Your task to perform on an android device: When is my next appointment? Image 0: 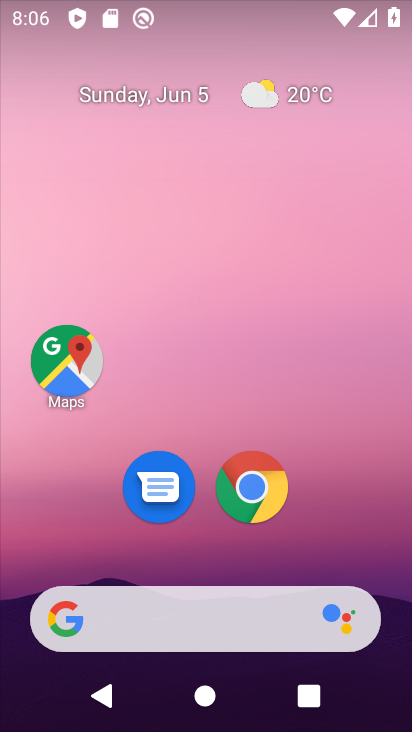
Step 0: drag from (259, 449) to (292, 3)
Your task to perform on an android device: When is my next appointment? Image 1: 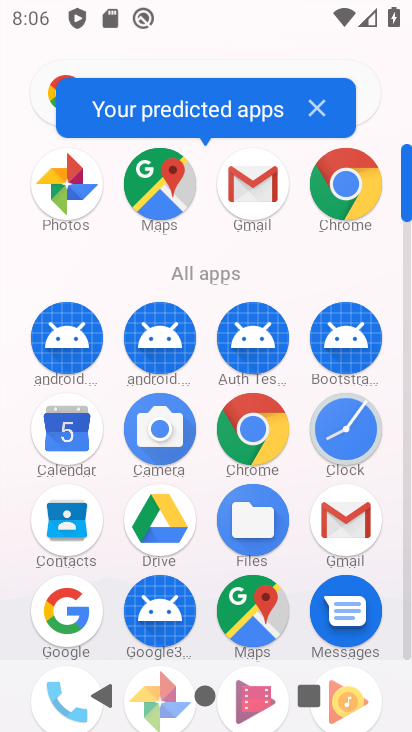
Step 1: click (72, 442)
Your task to perform on an android device: When is my next appointment? Image 2: 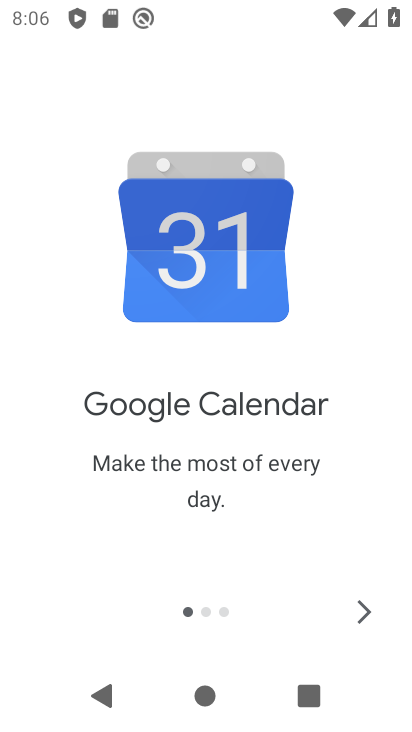
Step 2: click (377, 621)
Your task to perform on an android device: When is my next appointment? Image 3: 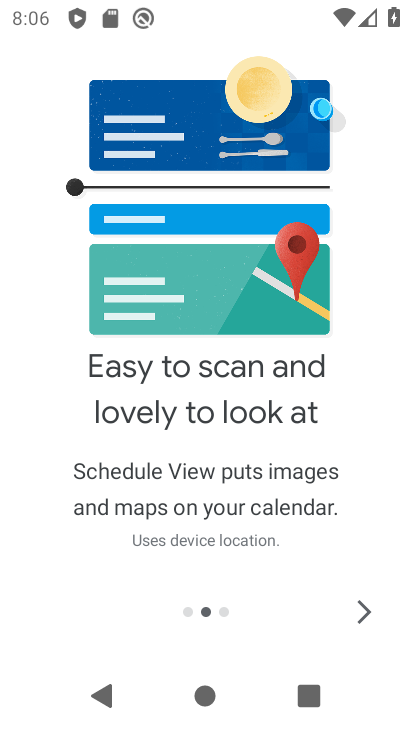
Step 3: click (358, 608)
Your task to perform on an android device: When is my next appointment? Image 4: 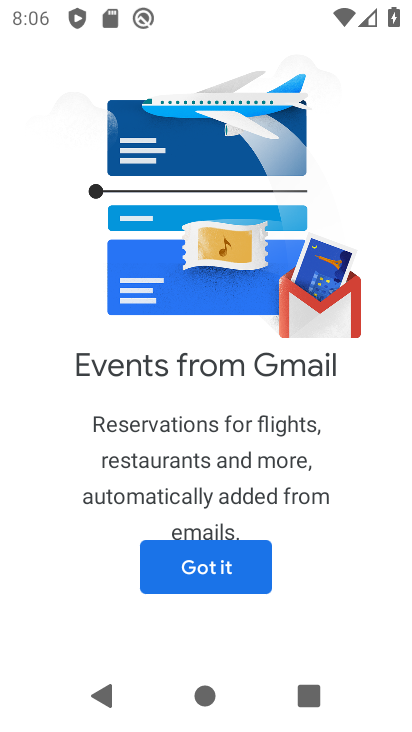
Step 4: click (218, 574)
Your task to perform on an android device: When is my next appointment? Image 5: 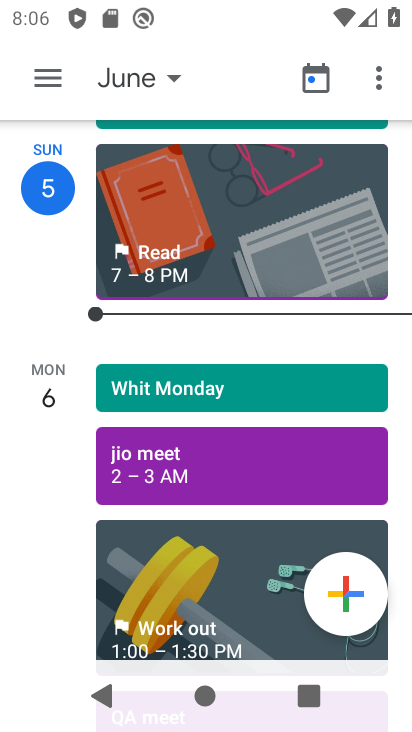
Step 5: drag from (210, 613) to (280, 99)
Your task to perform on an android device: When is my next appointment? Image 6: 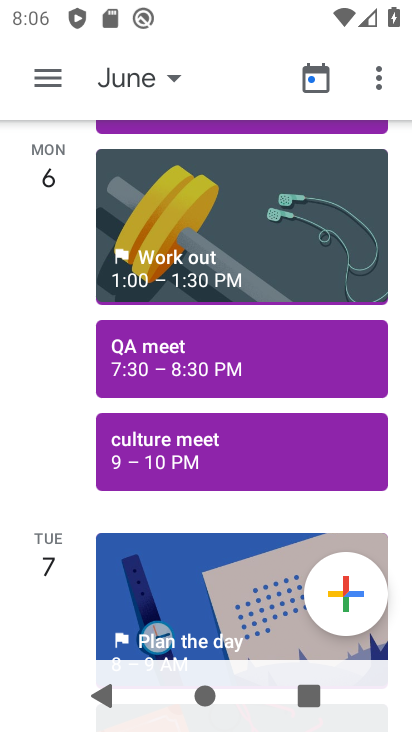
Step 6: drag from (203, 602) to (248, 141)
Your task to perform on an android device: When is my next appointment? Image 7: 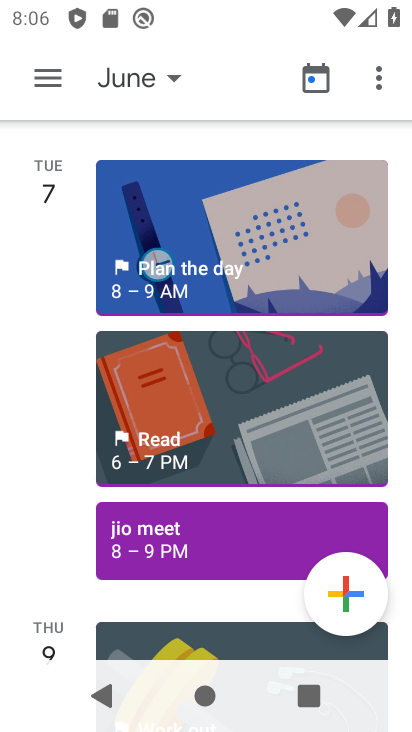
Step 7: click (139, 537)
Your task to perform on an android device: When is my next appointment? Image 8: 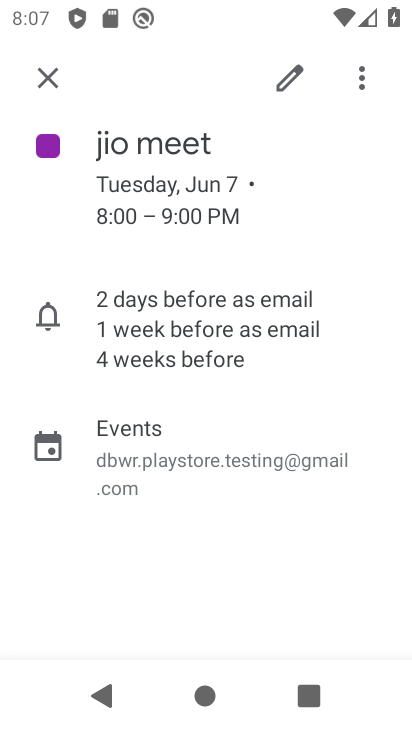
Step 8: task complete